Your task to perform on an android device: check out phone information Image 0: 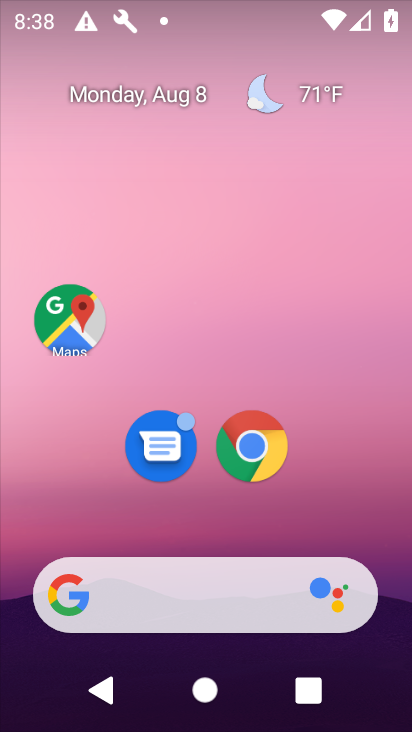
Step 0: drag from (243, 635) to (235, 11)
Your task to perform on an android device: check out phone information Image 1: 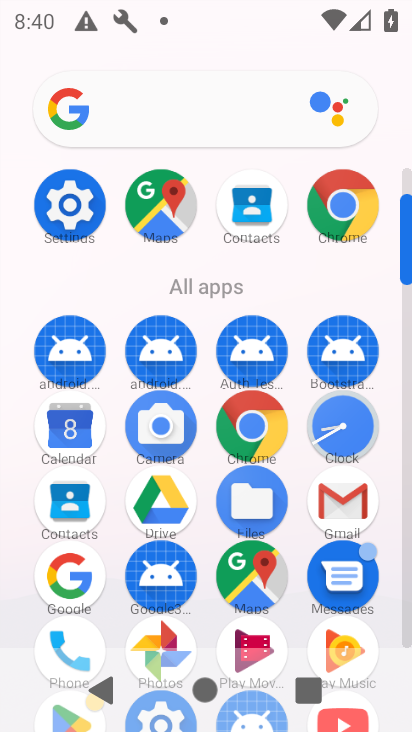
Step 1: click (64, 217)
Your task to perform on an android device: check out phone information Image 2: 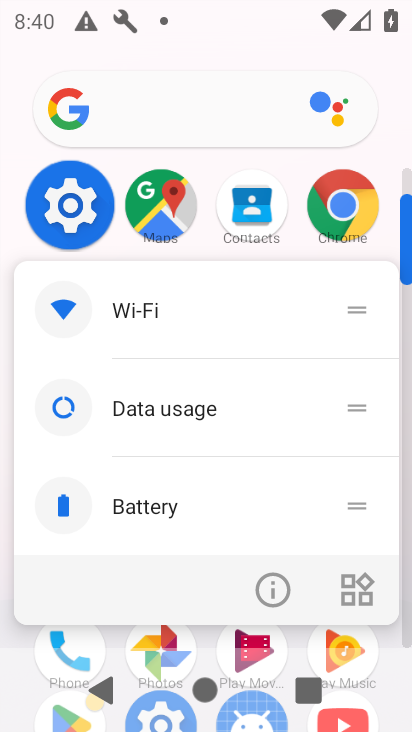
Step 2: click (63, 217)
Your task to perform on an android device: check out phone information Image 3: 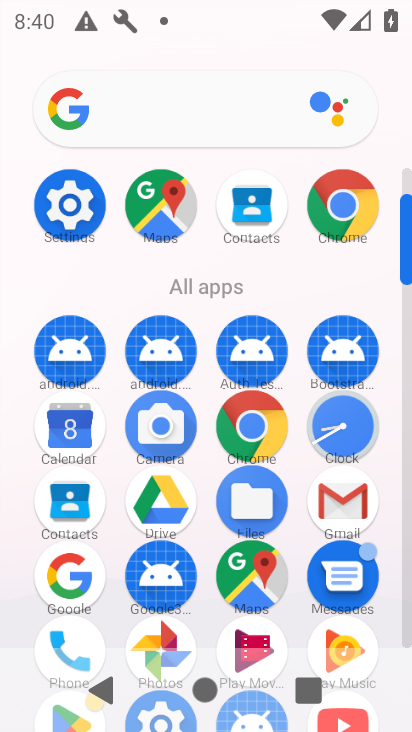
Step 3: click (63, 217)
Your task to perform on an android device: check out phone information Image 4: 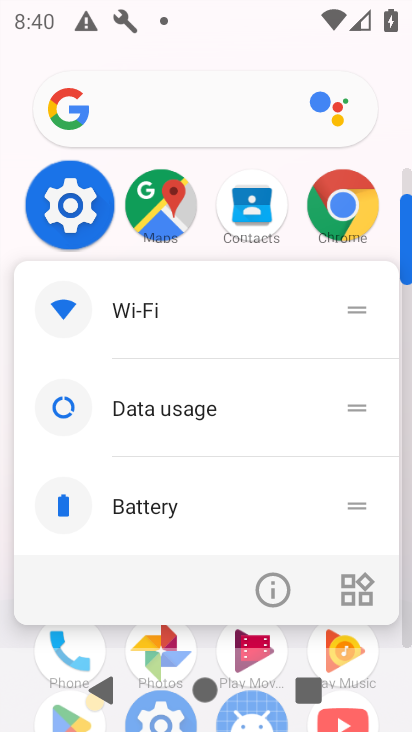
Step 4: click (60, 224)
Your task to perform on an android device: check out phone information Image 5: 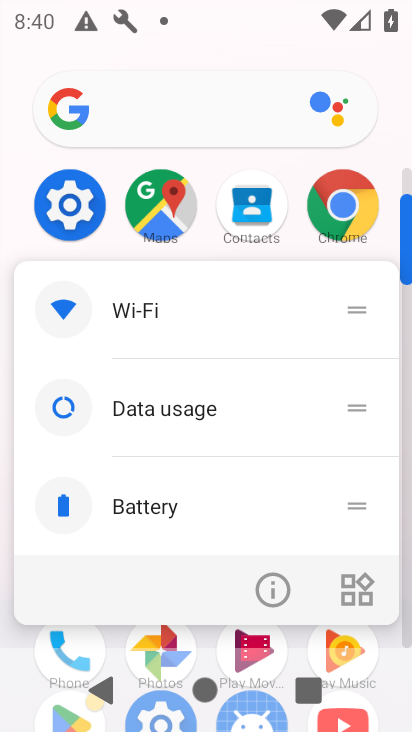
Step 5: click (61, 206)
Your task to perform on an android device: check out phone information Image 6: 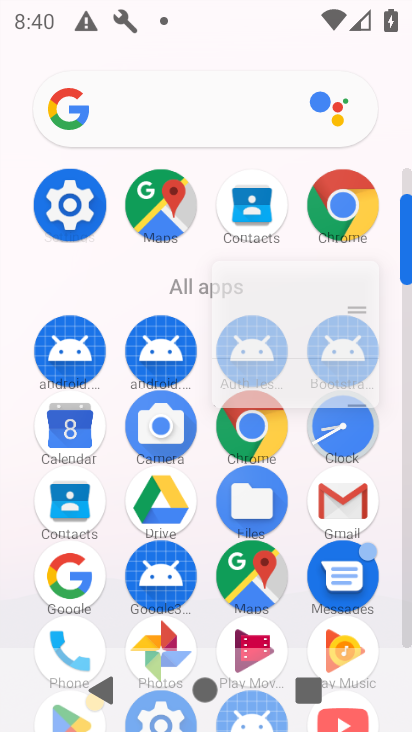
Step 6: click (69, 217)
Your task to perform on an android device: check out phone information Image 7: 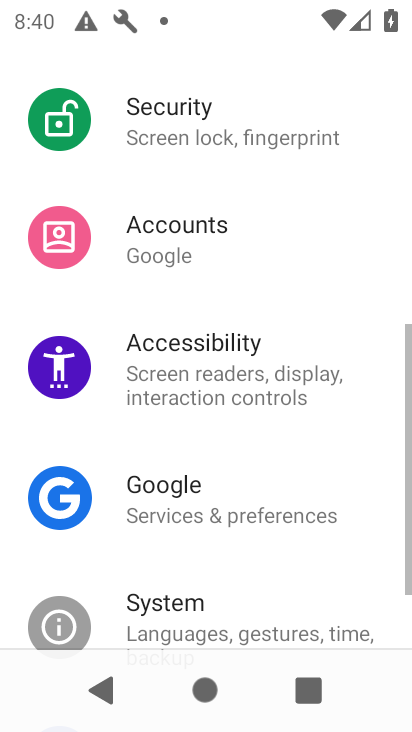
Step 7: click (74, 223)
Your task to perform on an android device: check out phone information Image 8: 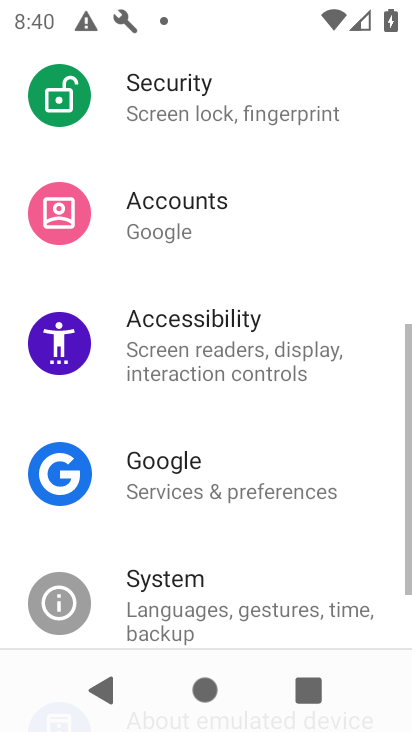
Step 8: click (75, 223)
Your task to perform on an android device: check out phone information Image 9: 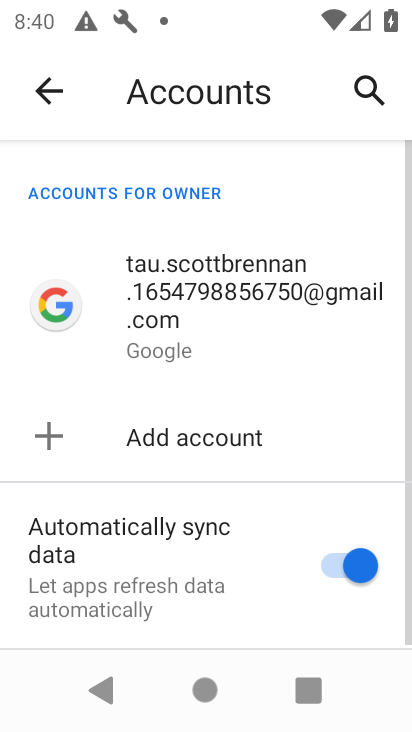
Step 9: click (45, 84)
Your task to perform on an android device: check out phone information Image 10: 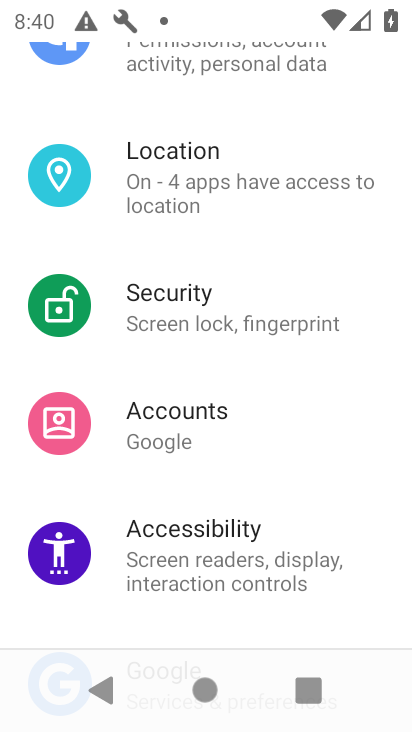
Step 10: drag from (182, 500) to (81, 49)
Your task to perform on an android device: check out phone information Image 11: 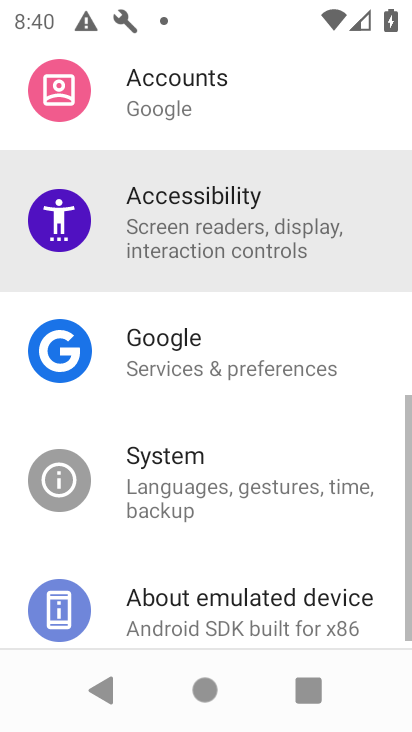
Step 11: drag from (212, 316) to (212, 103)
Your task to perform on an android device: check out phone information Image 12: 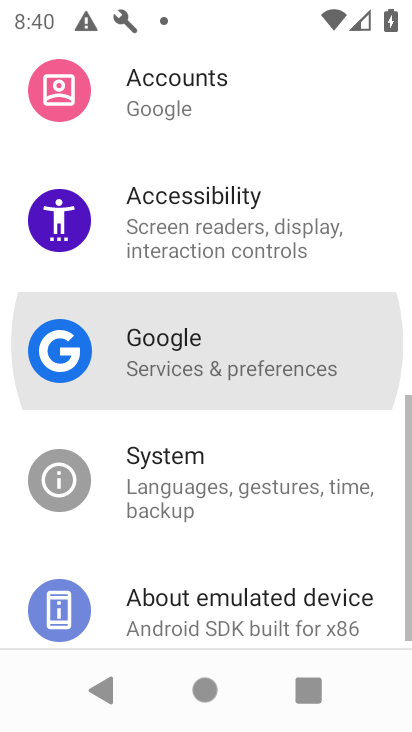
Step 12: drag from (225, 422) to (159, 106)
Your task to perform on an android device: check out phone information Image 13: 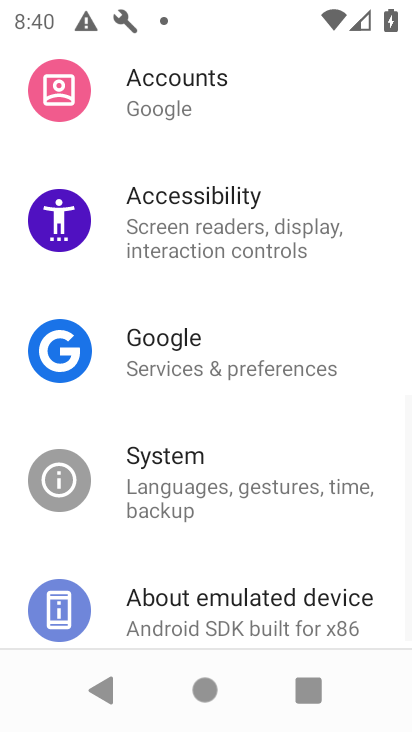
Step 13: drag from (203, 417) to (176, 195)
Your task to perform on an android device: check out phone information Image 14: 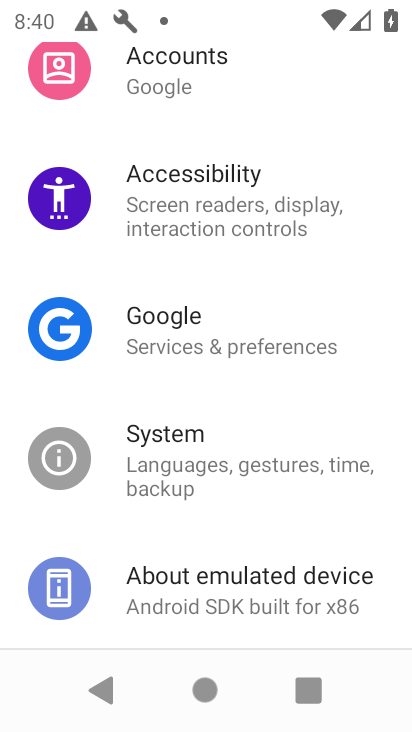
Step 14: drag from (183, 554) to (138, 317)
Your task to perform on an android device: check out phone information Image 15: 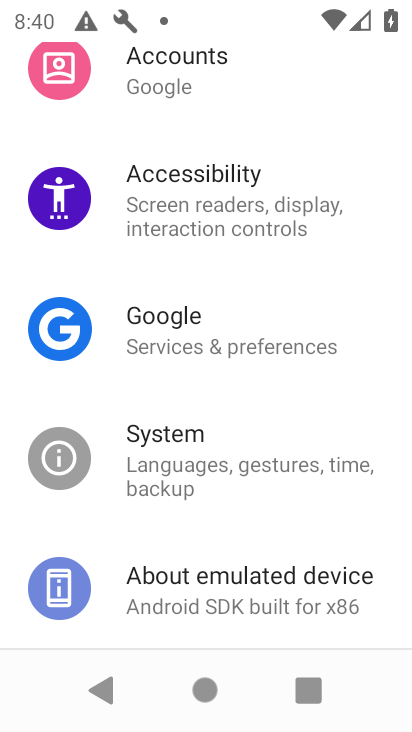
Step 15: click (194, 601)
Your task to perform on an android device: check out phone information Image 16: 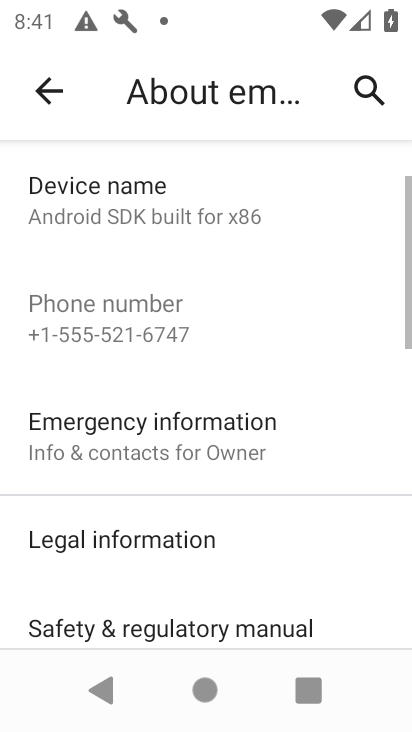
Step 16: task complete